Your task to perform on an android device: change text size in settings app Image 0: 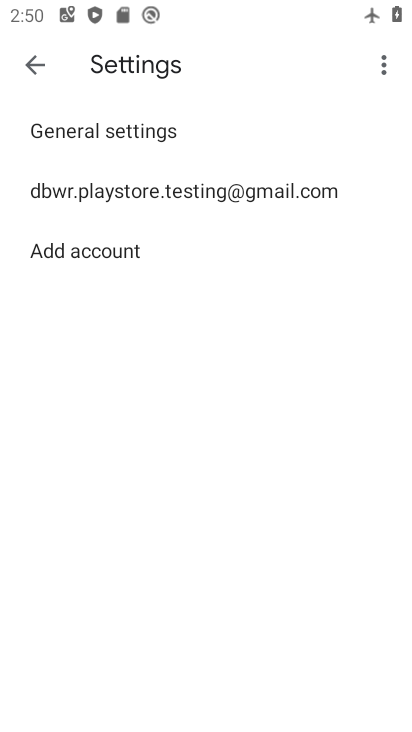
Step 0: press home button
Your task to perform on an android device: change text size in settings app Image 1: 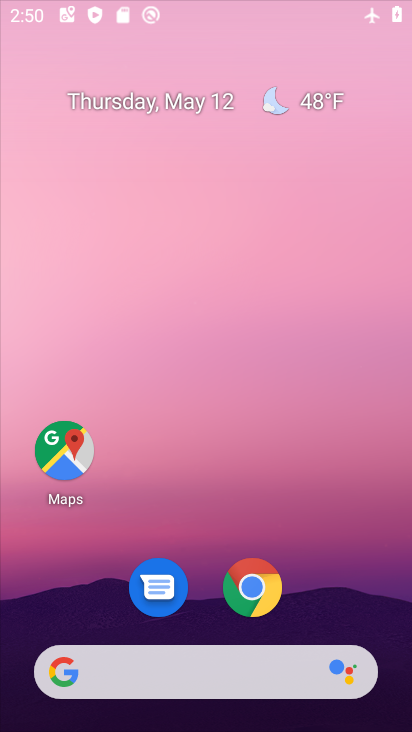
Step 1: drag from (202, 546) to (261, 126)
Your task to perform on an android device: change text size in settings app Image 2: 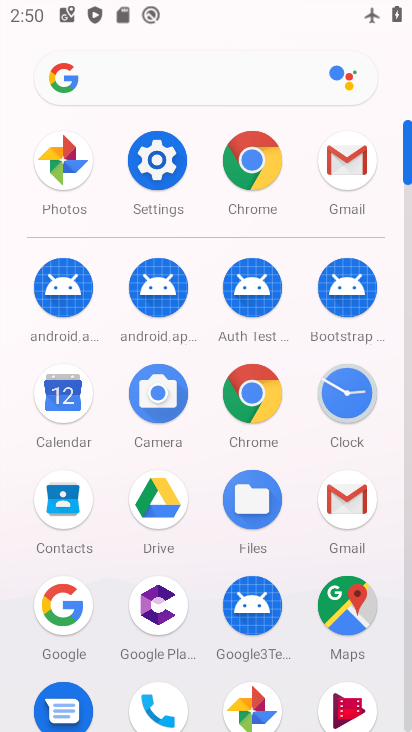
Step 2: click (157, 173)
Your task to perform on an android device: change text size in settings app Image 3: 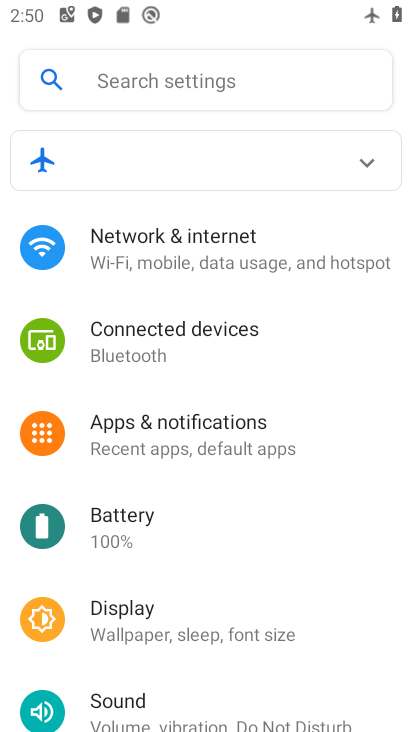
Step 3: drag from (188, 543) to (193, 261)
Your task to perform on an android device: change text size in settings app Image 4: 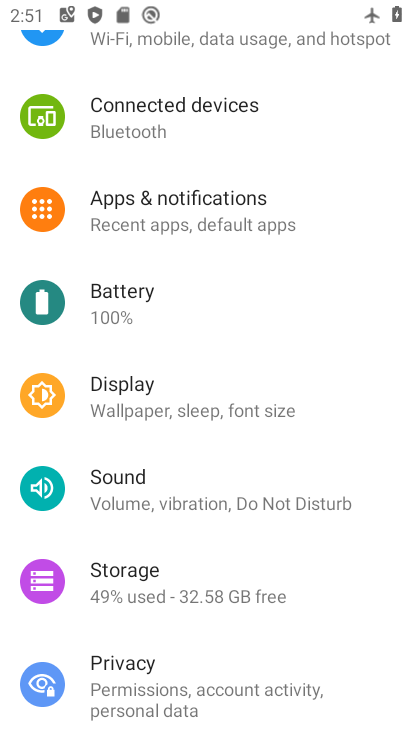
Step 4: click (185, 393)
Your task to perform on an android device: change text size in settings app Image 5: 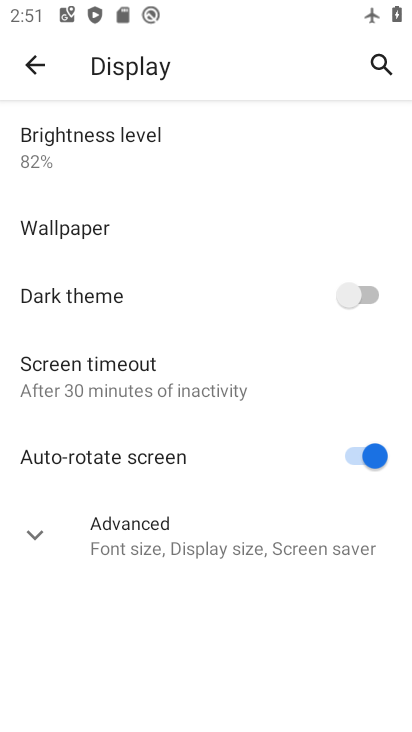
Step 5: click (163, 539)
Your task to perform on an android device: change text size in settings app Image 6: 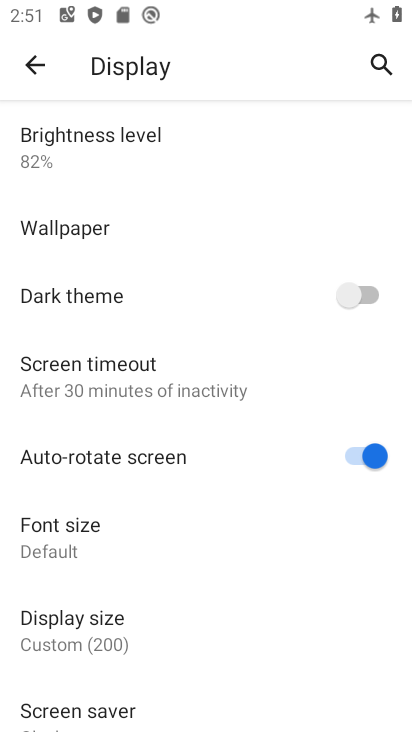
Step 6: drag from (156, 592) to (160, 376)
Your task to perform on an android device: change text size in settings app Image 7: 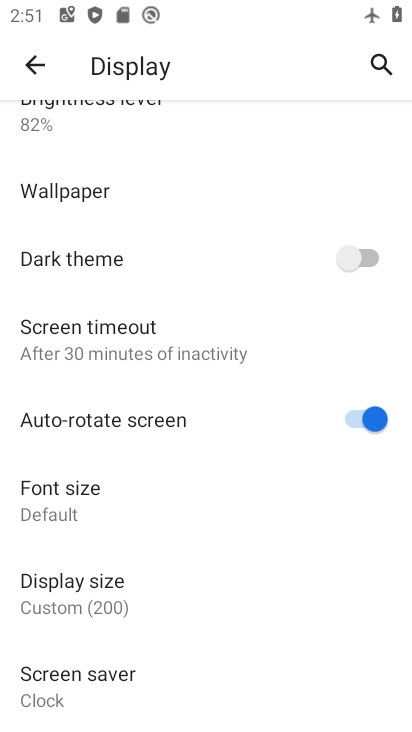
Step 7: click (137, 500)
Your task to perform on an android device: change text size in settings app Image 8: 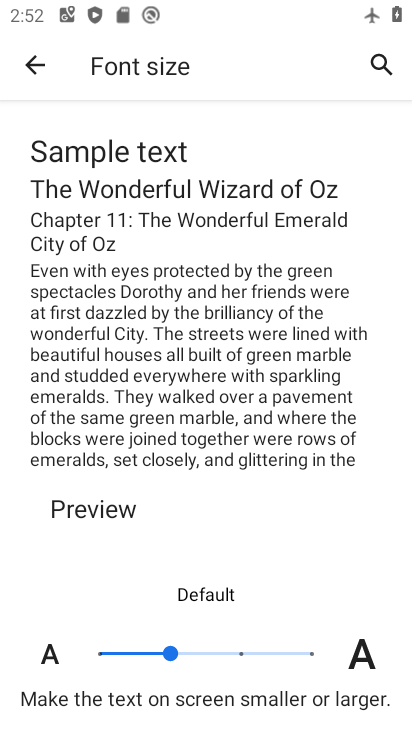
Step 8: click (248, 651)
Your task to perform on an android device: change text size in settings app Image 9: 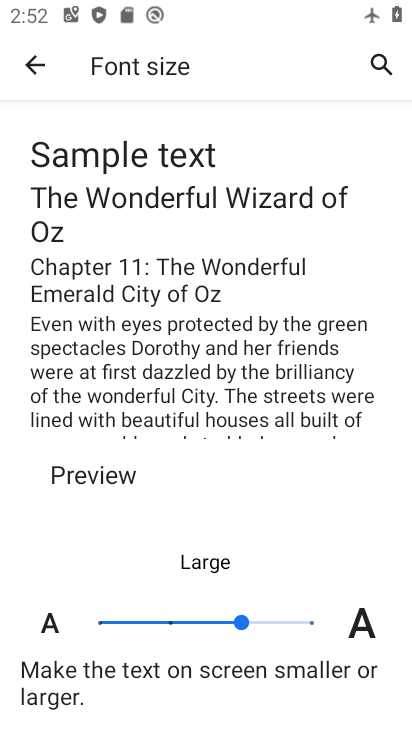
Step 9: task complete